Your task to perform on an android device: Open battery settings Image 0: 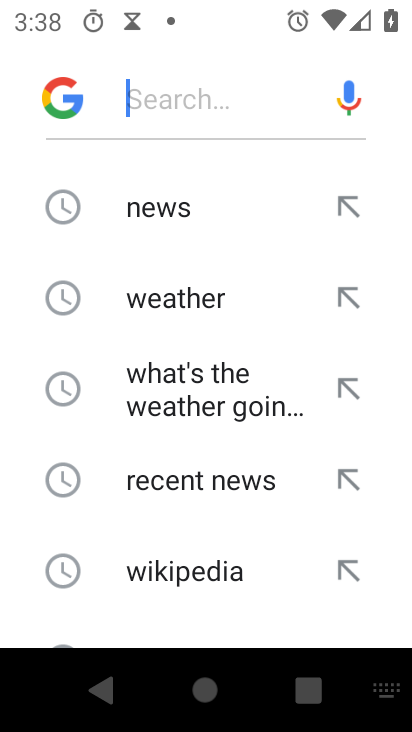
Step 0: press back button
Your task to perform on an android device: Open battery settings Image 1: 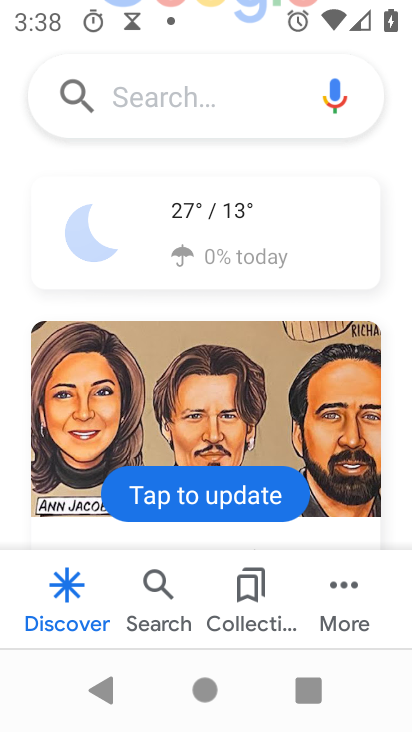
Step 1: press back button
Your task to perform on an android device: Open battery settings Image 2: 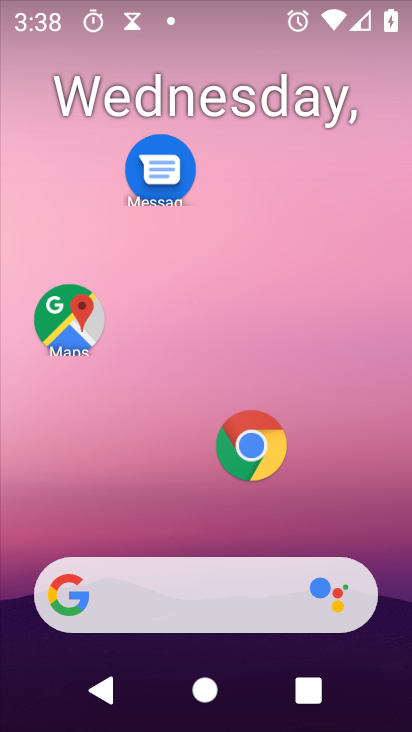
Step 2: drag from (52, 444) to (250, 55)
Your task to perform on an android device: Open battery settings Image 3: 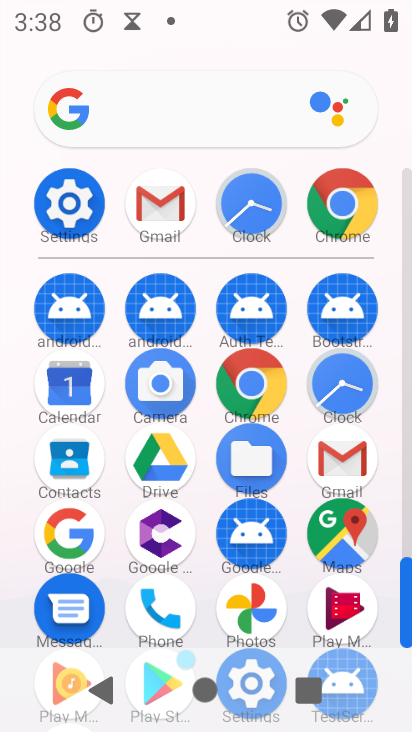
Step 3: click (75, 205)
Your task to perform on an android device: Open battery settings Image 4: 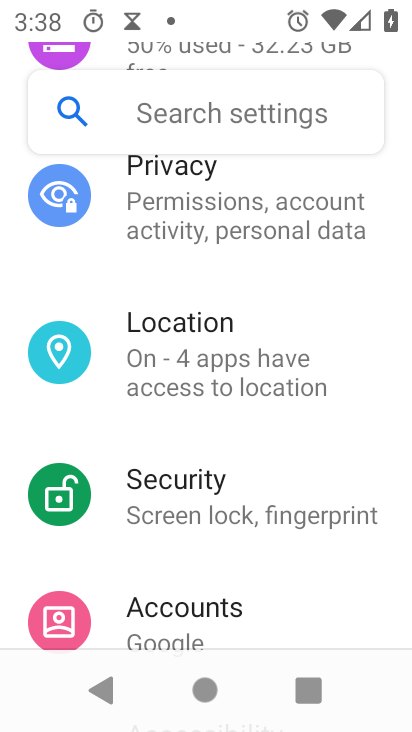
Step 4: drag from (360, 195) to (165, 692)
Your task to perform on an android device: Open battery settings Image 5: 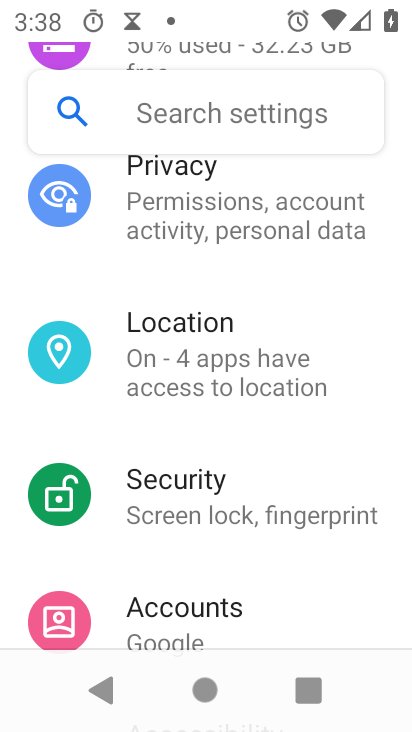
Step 5: drag from (134, 193) to (84, 581)
Your task to perform on an android device: Open battery settings Image 6: 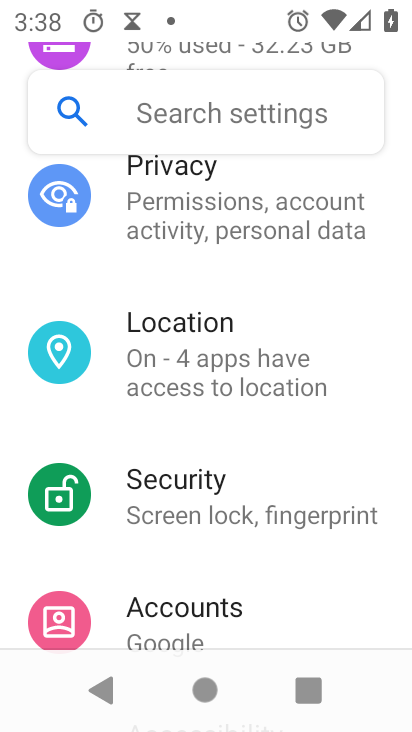
Step 6: drag from (25, 150) to (122, 625)
Your task to perform on an android device: Open battery settings Image 7: 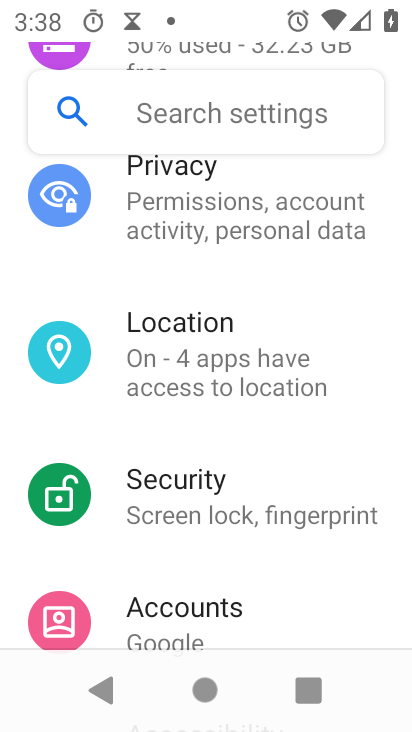
Step 7: drag from (274, 191) to (251, 545)
Your task to perform on an android device: Open battery settings Image 8: 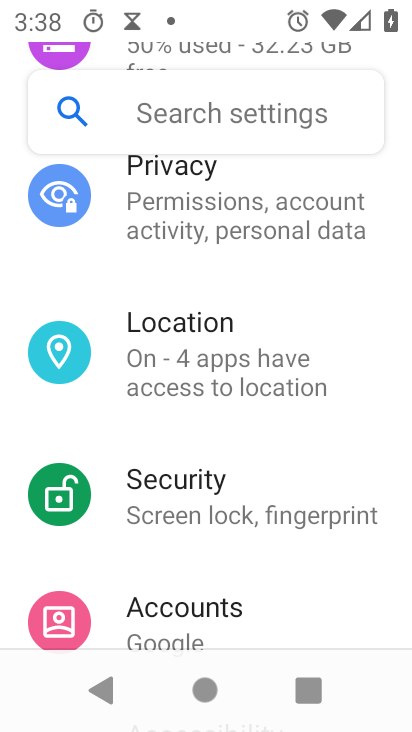
Step 8: drag from (55, 340) to (177, 532)
Your task to perform on an android device: Open battery settings Image 9: 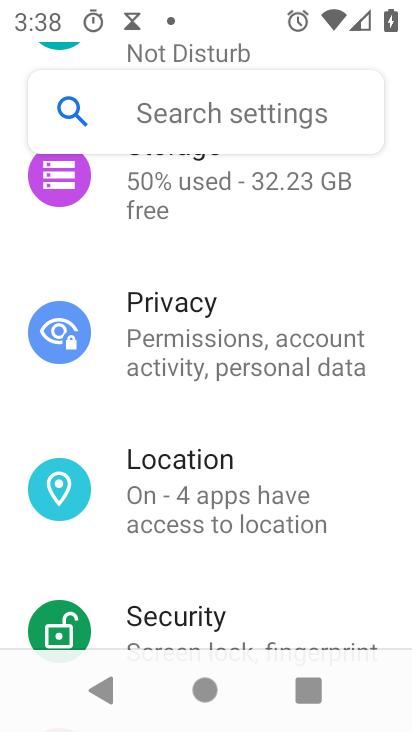
Step 9: drag from (262, 221) to (193, 550)
Your task to perform on an android device: Open battery settings Image 10: 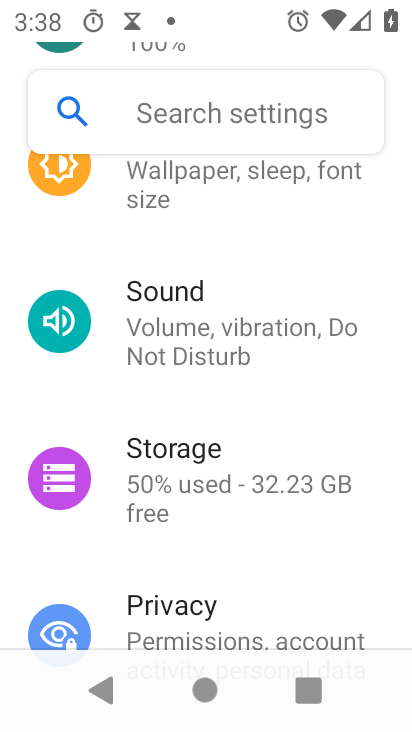
Step 10: drag from (285, 202) to (271, 540)
Your task to perform on an android device: Open battery settings Image 11: 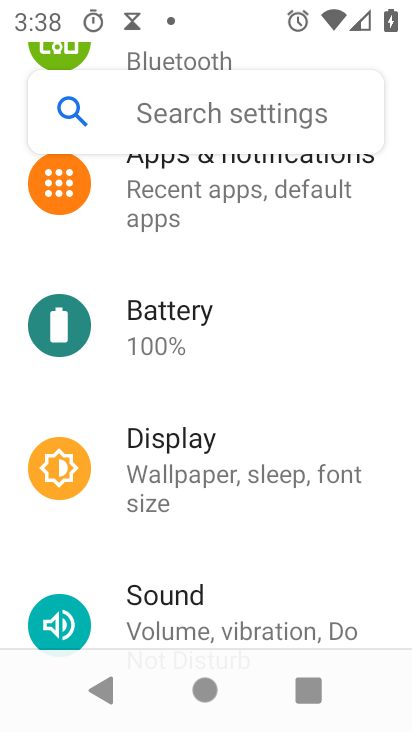
Step 11: click (197, 321)
Your task to perform on an android device: Open battery settings Image 12: 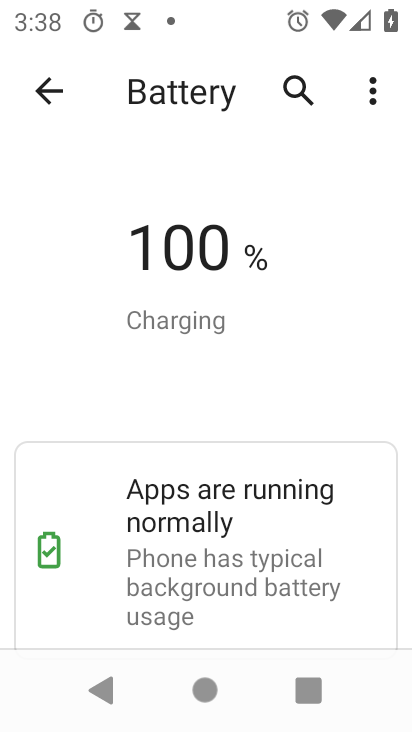
Step 12: task complete